Your task to perform on an android device: allow cookies in the chrome app Image 0: 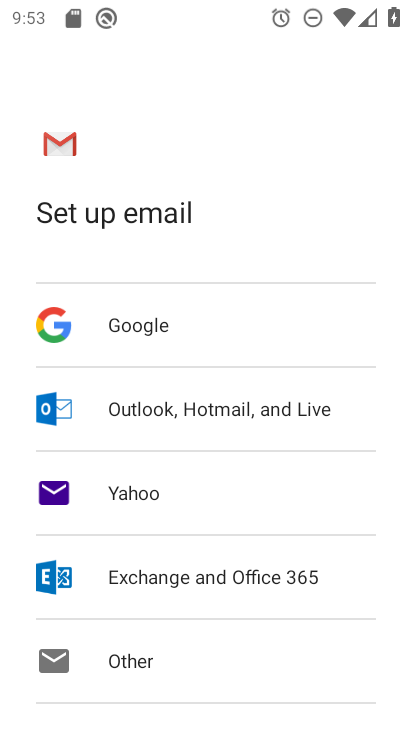
Step 0: press home button
Your task to perform on an android device: allow cookies in the chrome app Image 1: 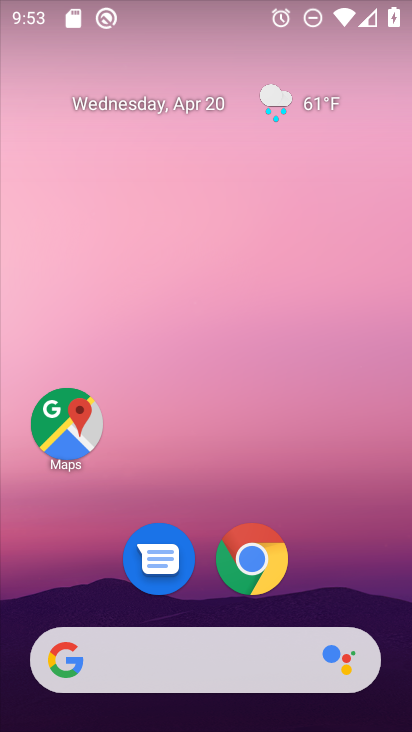
Step 1: click (247, 559)
Your task to perform on an android device: allow cookies in the chrome app Image 2: 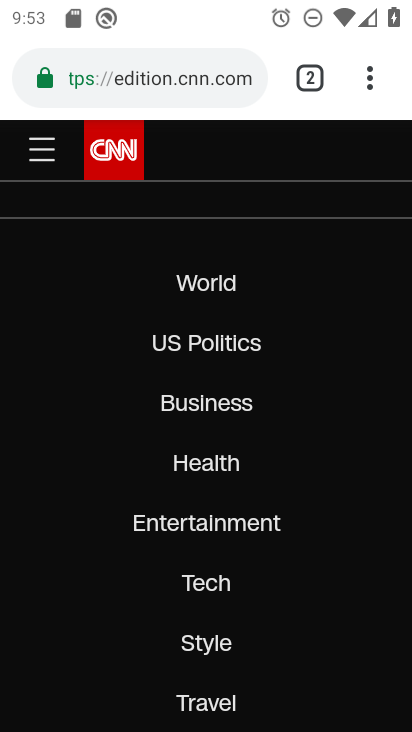
Step 2: click (365, 81)
Your task to perform on an android device: allow cookies in the chrome app Image 3: 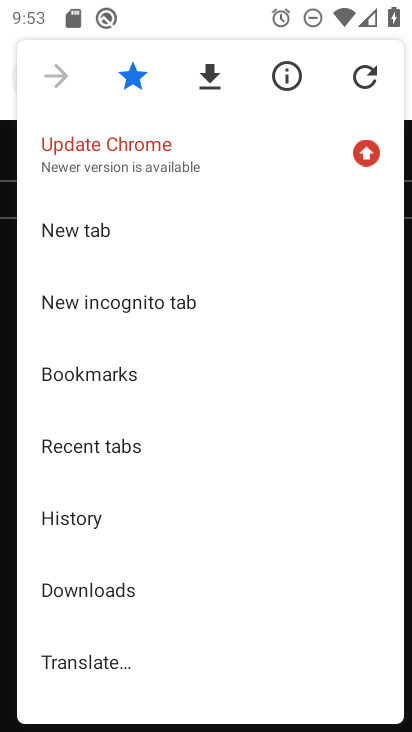
Step 3: drag from (185, 568) to (224, 328)
Your task to perform on an android device: allow cookies in the chrome app Image 4: 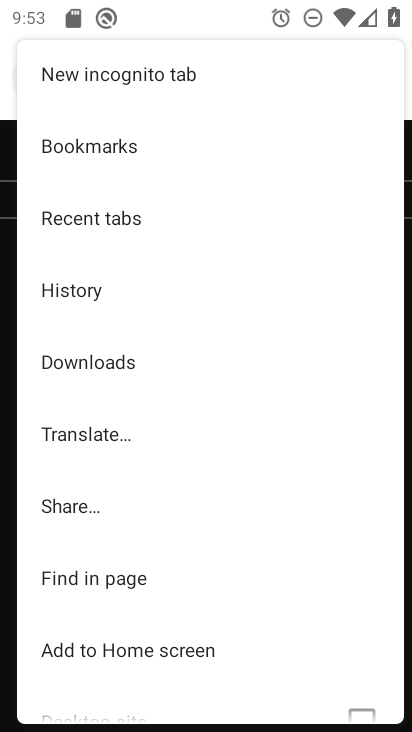
Step 4: drag from (212, 584) to (211, 340)
Your task to perform on an android device: allow cookies in the chrome app Image 5: 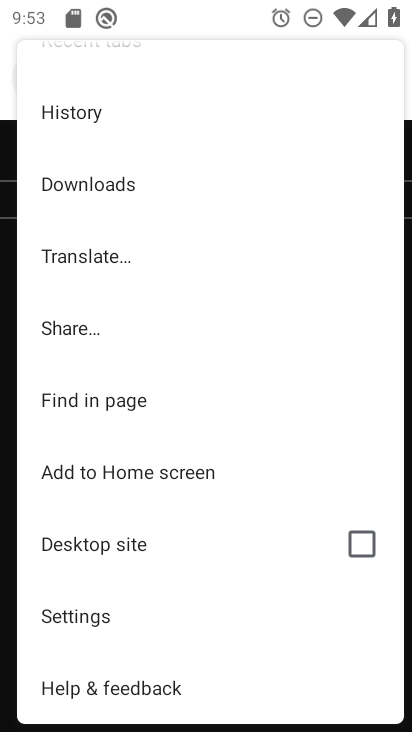
Step 5: click (71, 607)
Your task to perform on an android device: allow cookies in the chrome app Image 6: 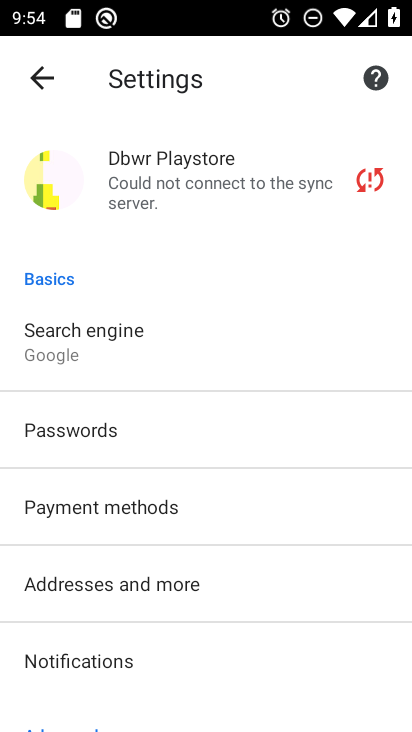
Step 6: drag from (252, 622) to (242, 365)
Your task to perform on an android device: allow cookies in the chrome app Image 7: 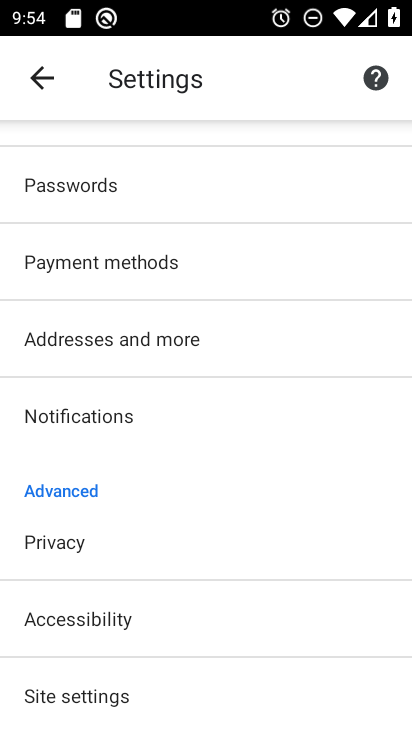
Step 7: drag from (195, 547) to (243, 387)
Your task to perform on an android device: allow cookies in the chrome app Image 8: 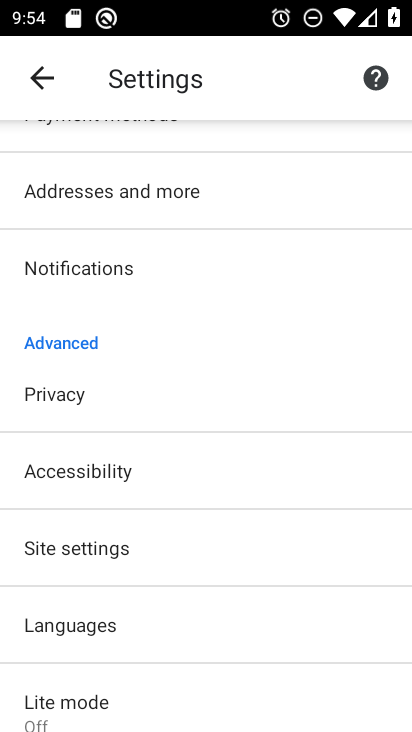
Step 8: click (103, 543)
Your task to perform on an android device: allow cookies in the chrome app Image 9: 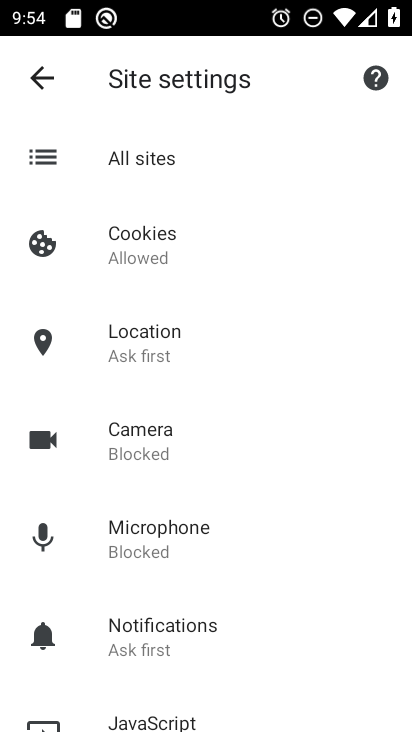
Step 9: click (137, 235)
Your task to perform on an android device: allow cookies in the chrome app Image 10: 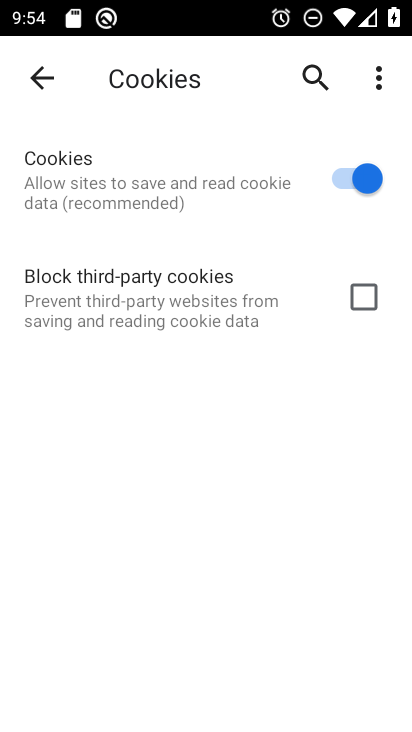
Step 10: task complete